Your task to perform on an android device: Open battery settings Image 0: 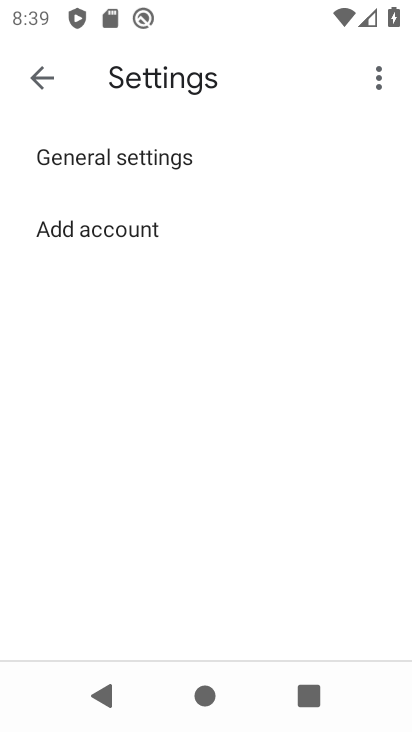
Step 0: press back button
Your task to perform on an android device: Open battery settings Image 1: 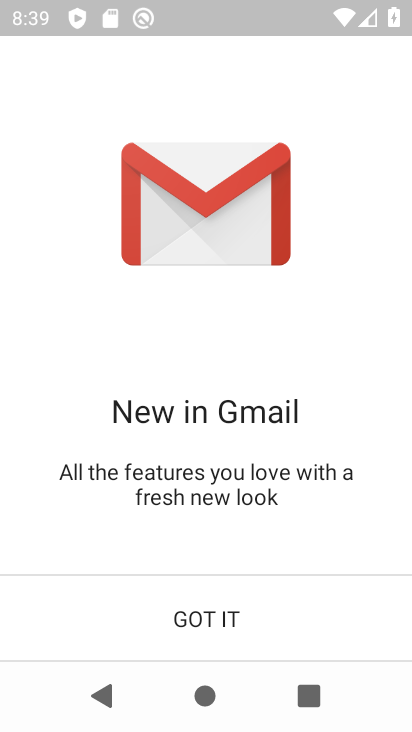
Step 1: press back button
Your task to perform on an android device: Open battery settings Image 2: 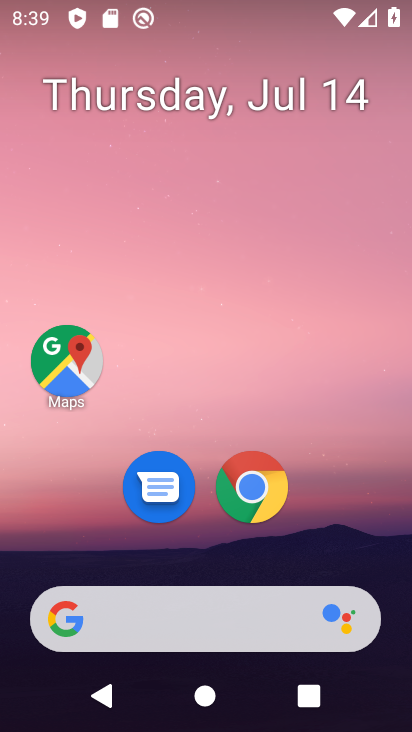
Step 2: drag from (237, 554) to (302, 18)
Your task to perform on an android device: Open battery settings Image 3: 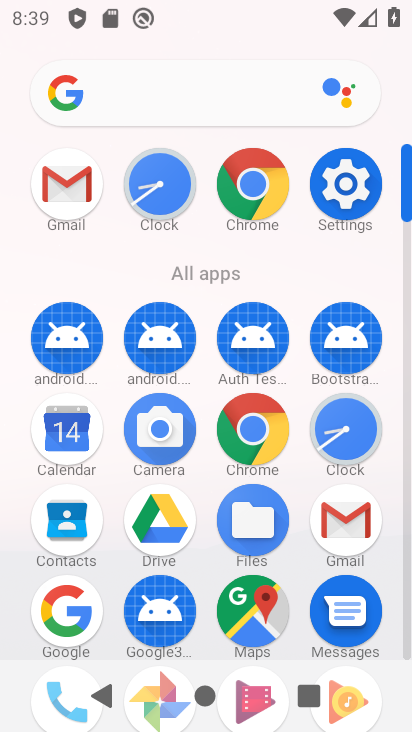
Step 3: click (342, 190)
Your task to perform on an android device: Open battery settings Image 4: 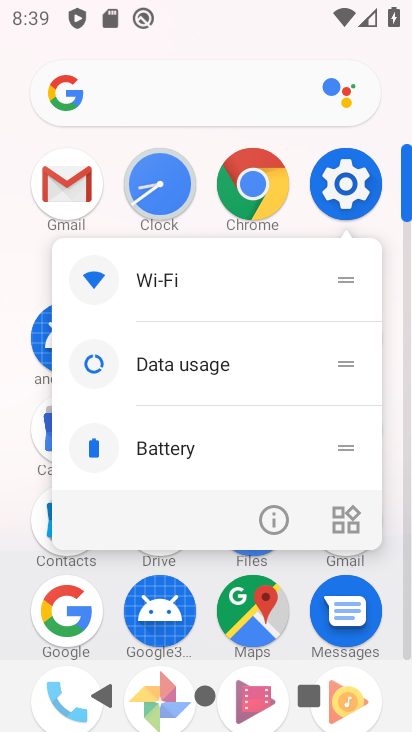
Step 4: click (355, 186)
Your task to perform on an android device: Open battery settings Image 5: 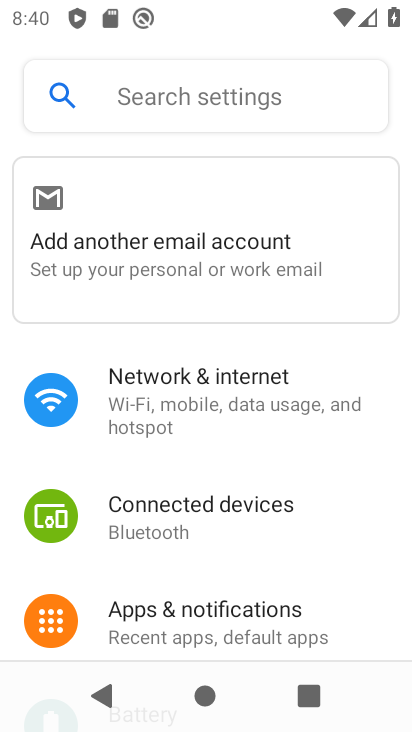
Step 5: drag from (211, 533) to (306, 179)
Your task to perform on an android device: Open battery settings Image 6: 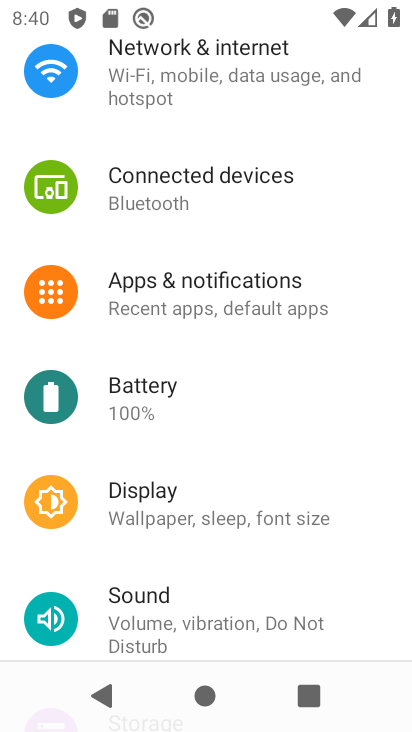
Step 6: click (145, 389)
Your task to perform on an android device: Open battery settings Image 7: 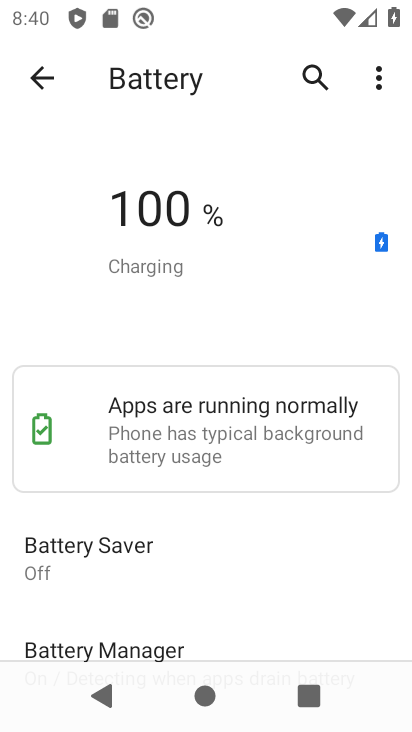
Step 7: task complete